Your task to perform on an android device: Search for sushi restaurants on Maps Image 0: 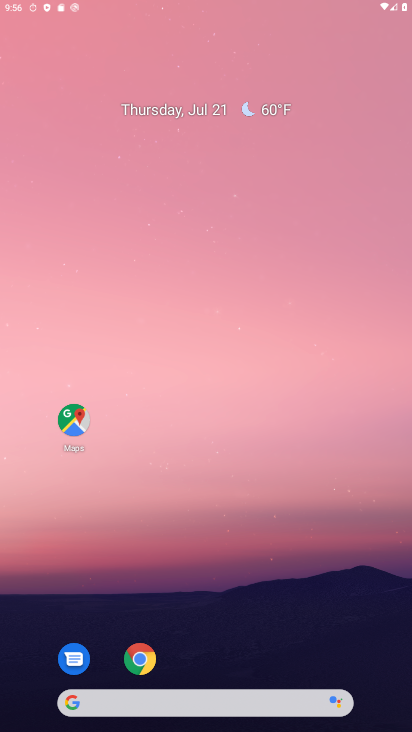
Step 0: click (200, 270)
Your task to perform on an android device: Search for sushi restaurants on Maps Image 1: 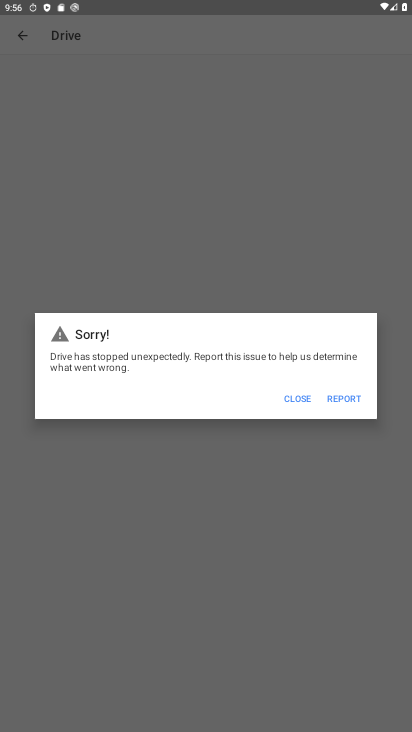
Step 1: press home button
Your task to perform on an android device: Search for sushi restaurants on Maps Image 2: 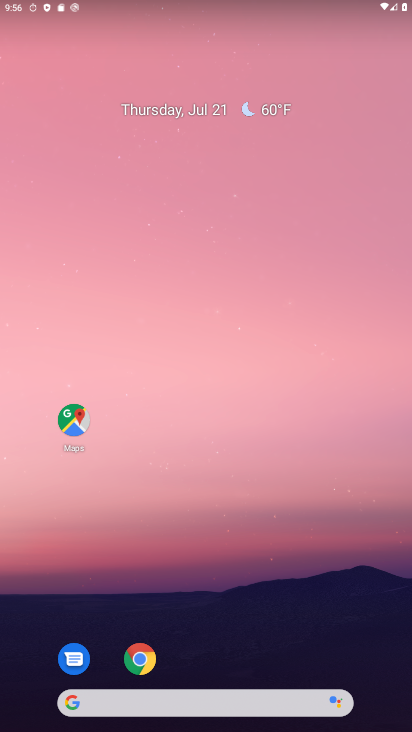
Step 2: click (68, 420)
Your task to perform on an android device: Search for sushi restaurants on Maps Image 3: 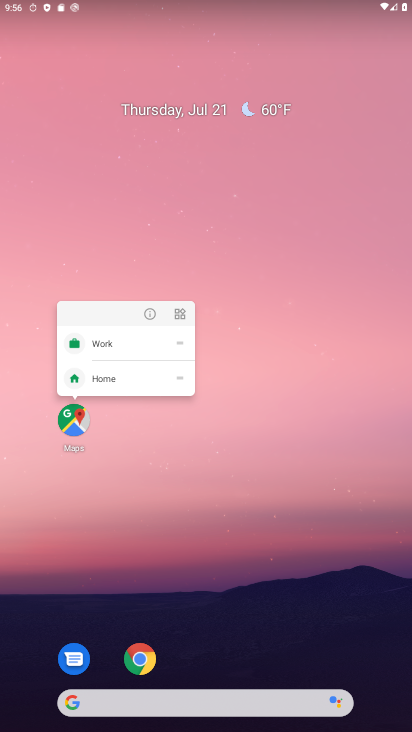
Step 3: click (68, 420)
Your task to perform on an android device: Search for sushi restaurants on Maps Image 4: 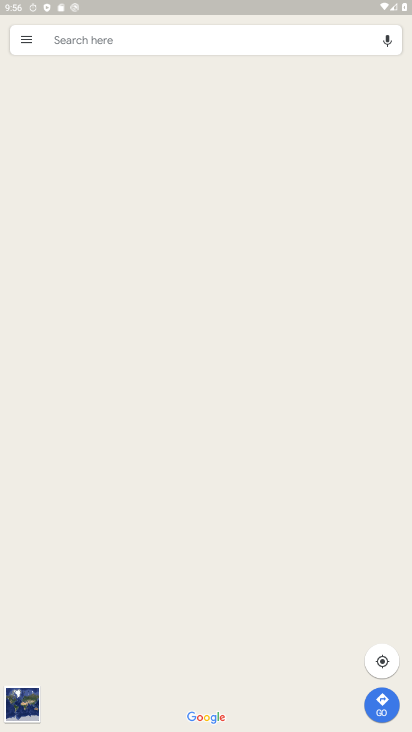
Step 4: click (137, 41)
Your task to perform on an android device: Search for sushi restaurants on Maps Image 5: 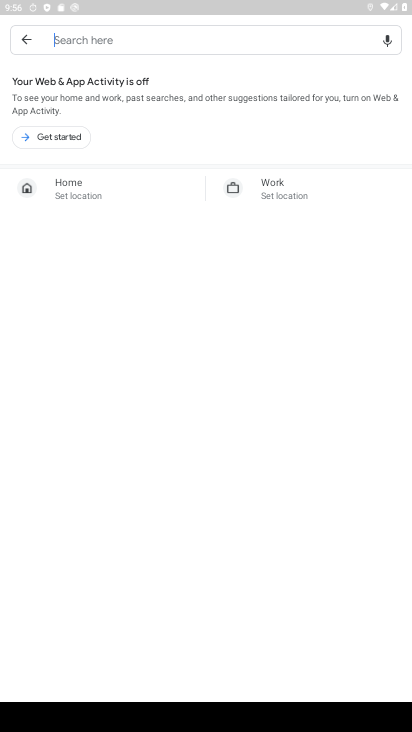
Step 5: click (90, 36)
Your task to perform on an android device: Search for sushi restaurants on Maps Image 6: 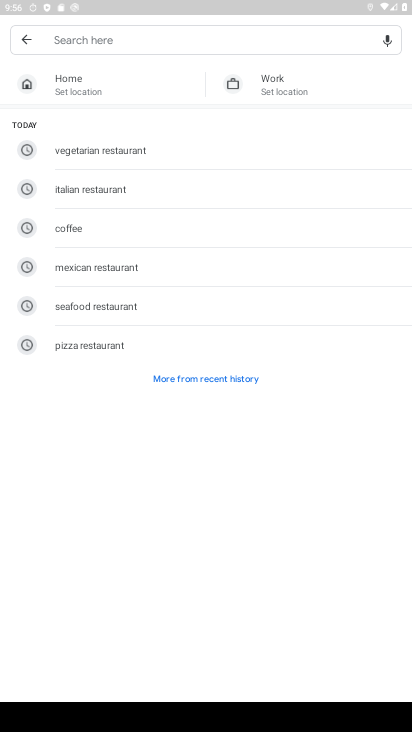
Step 6: click (192, 380)
Your task to perform on an android device: Search for sushi restaurants on Maps Image 7: 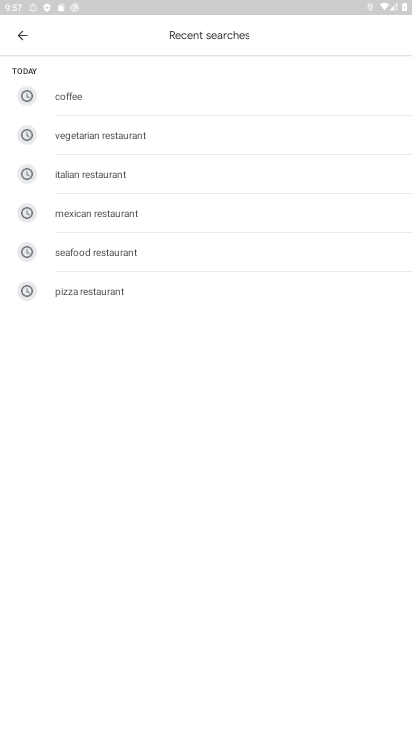
Step 7: click (28, 34)
Your task to perform on an android device: Search for sushi restaurants on Maps Image 8: 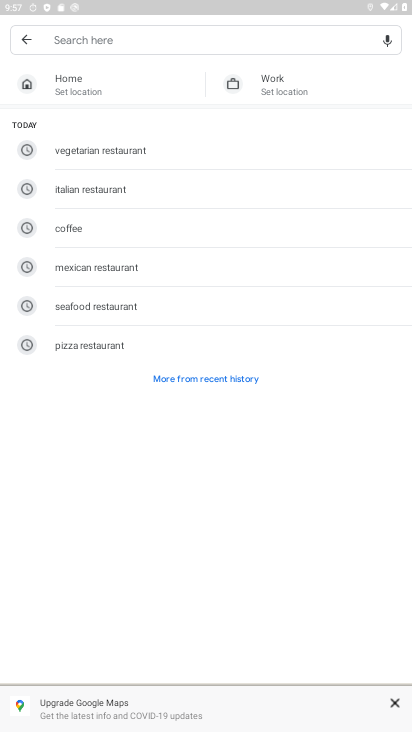
Step 8: type "sushi restaurants"
Your task to perform on an android device: Search for sushi restaurants on Maps Image 9: 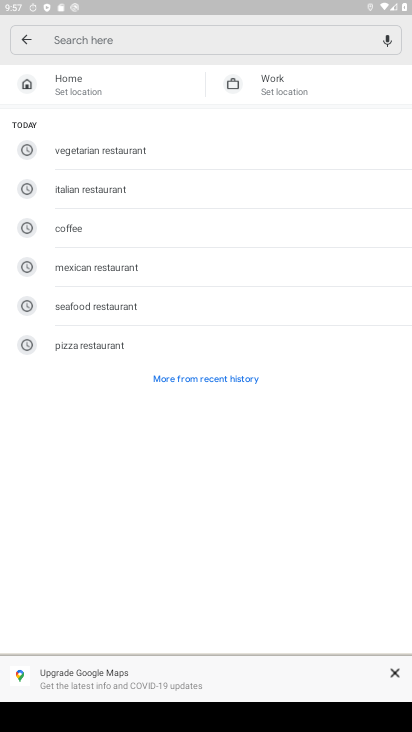
Step 9: click (61, 40)
Your task to perform on an android device: Search for sushi restaurants on Maps Image 10: 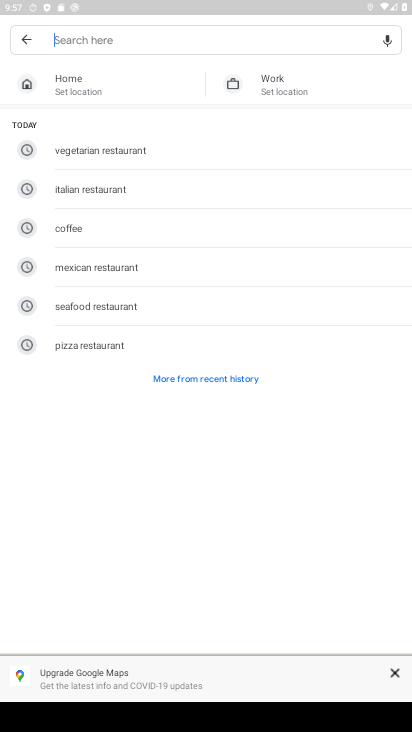
Step 10: type "sushi restaurants"
Your task to perform on an android device: Search for sushi restaurants on Maps Image 11: 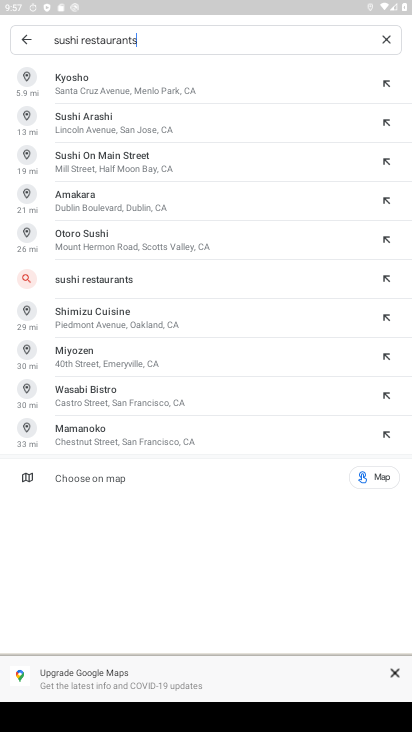
Step 11: click (119, 279)
Your task to perform on an android device: Search for sushi restaurants on Maps Image 12: 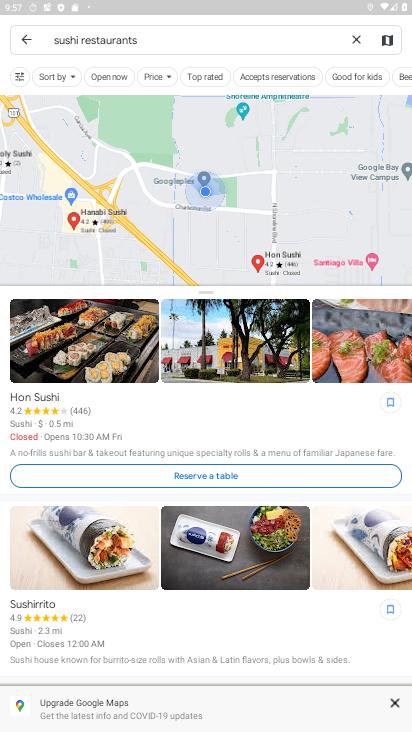
Step 12: task complete